Your task to perform on an android device: check battery use Image 0: 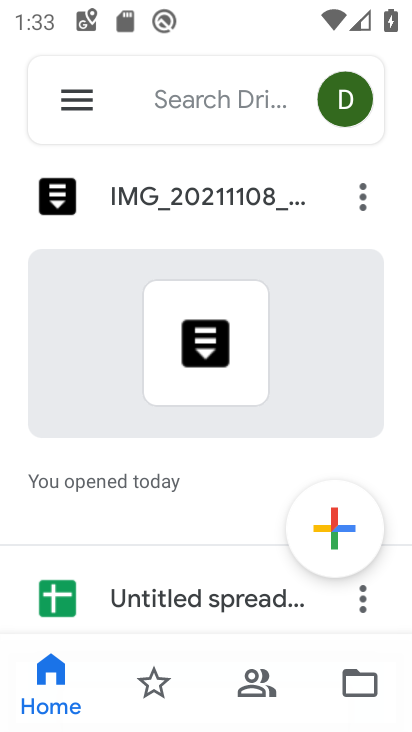
Step 0: press home button
Your task to perform on an android device: check battery use Image 1: 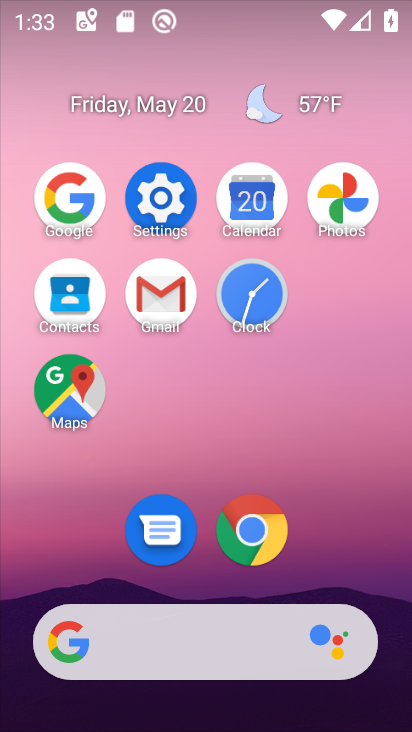
Step 1: click (180, 204)
Your task to perform on an android device: check battery use Image 2: 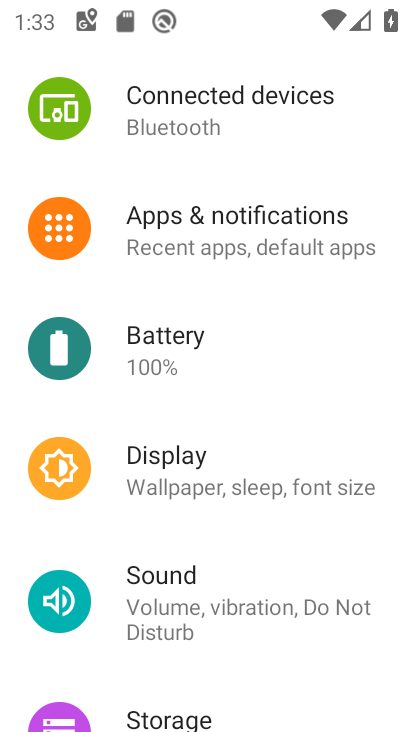
Step 2: drag from (257, 593) to (291, 441)
Your task to perform on an android device: check battery use Image 3: 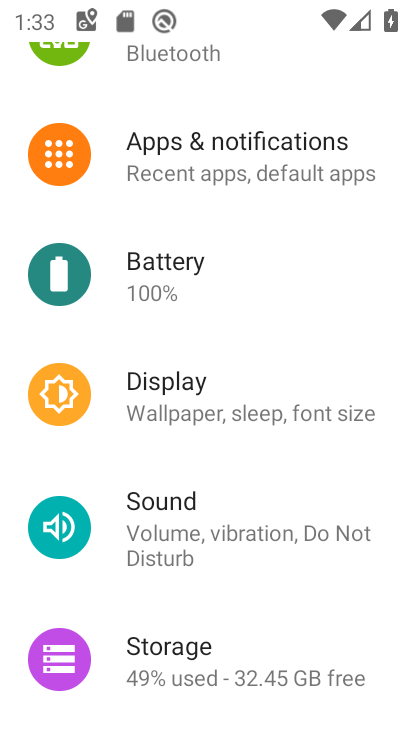
Step 3: click (259, 271)
Your task to perform on an android device: check battery use Image 4: 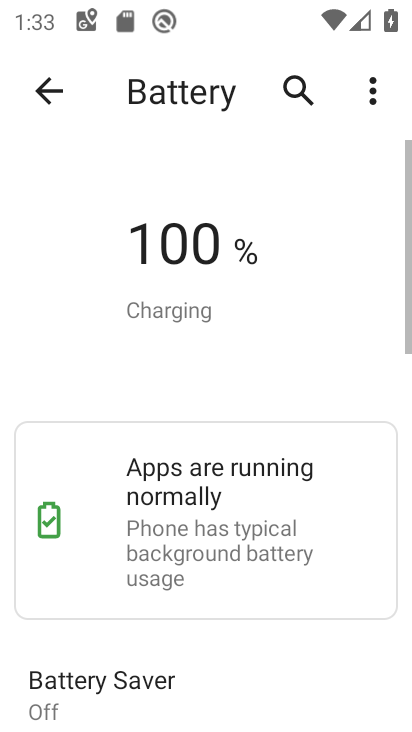
Step 4: click (368, 94)
Your task to perform on an android device: check battery use Image 5: 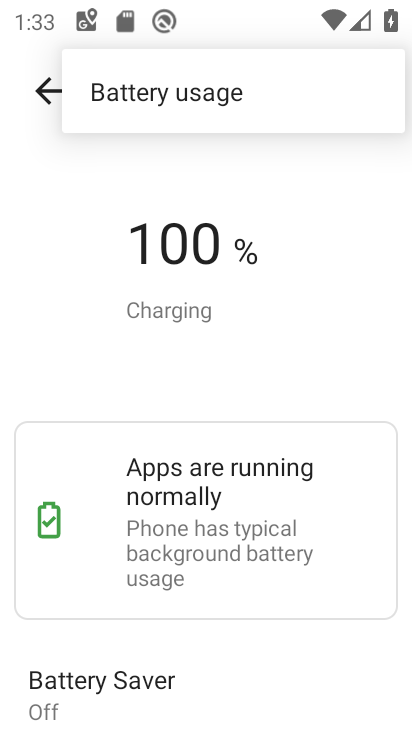
Step 5: click (315, 81)
Your task to perform on an android device: check battery use Image 6: 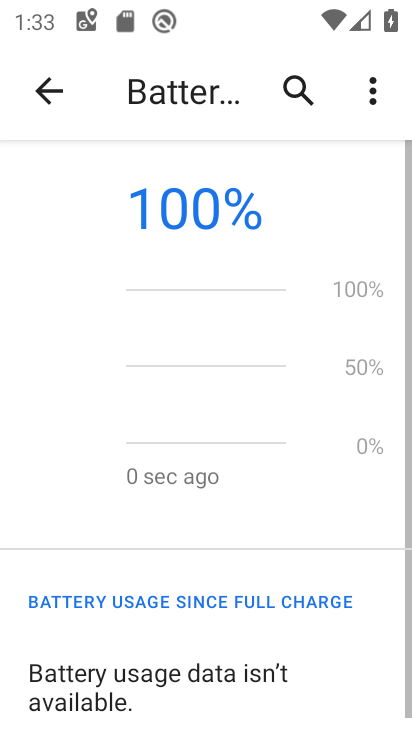
Step 6: task complete